Your task to perform on an android device: open the mobile data screen to see how much data has been used Image 0: 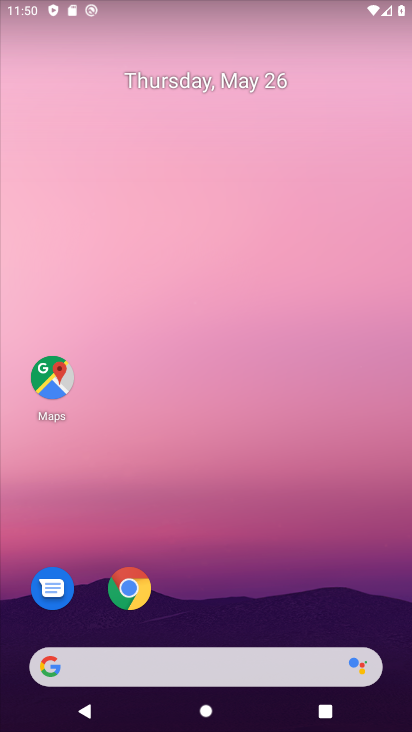
Step 0: drag from (393, 3) to (253, 488)
Your task to perform on an android device: open the mobile data screen to see how much data has been used Image 1: 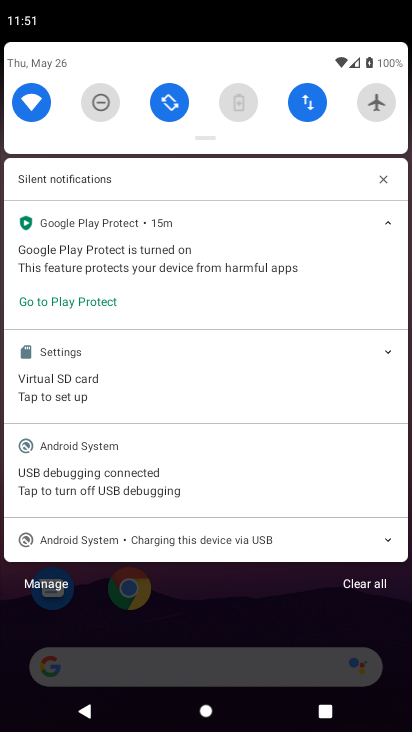
Step 1: click (310, 112)
Your task to perform on an android device: open the mobile data screen to see how much data has been used Image 2: 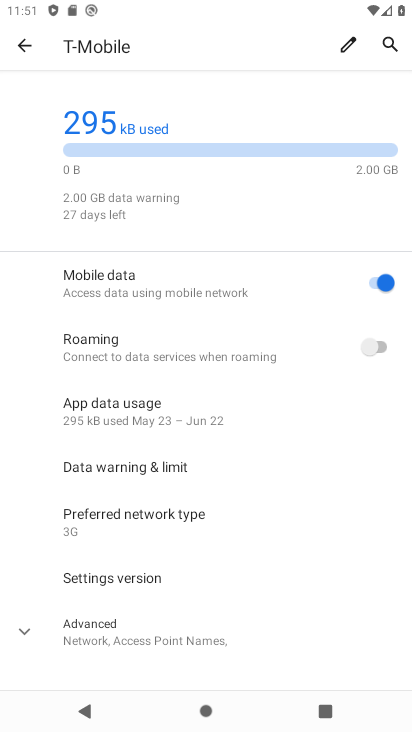
Step 2: task complete